Your task to perform on an android device: change the clock display to digital Image 0: 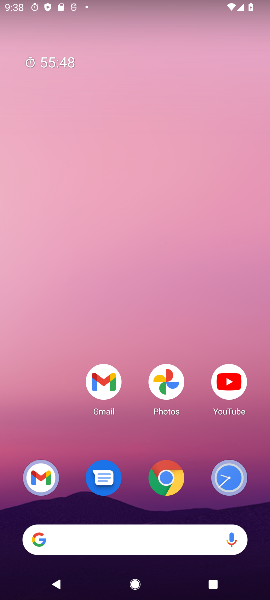
Step 0: press home button
Your task to perform on an android device: change the clock display to digital Image 1: 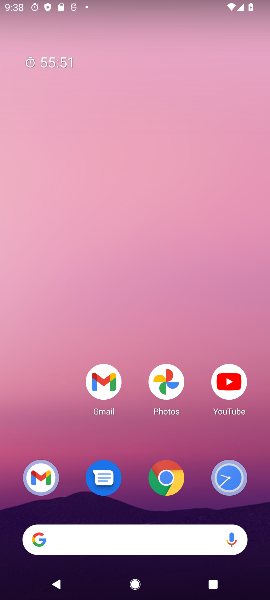
Step 1: drag from (137, 424) to (136, 39)
Your task to perform on an android device: change the clock display to digital Image 2: 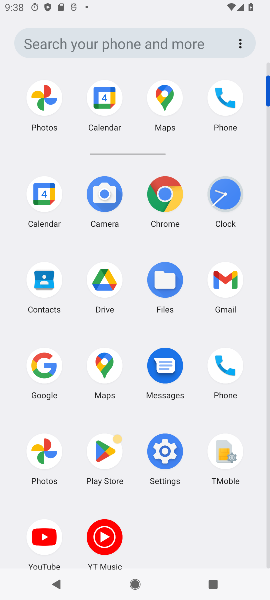
Step 2: click (214, 211)
Your task to perform on an android device: change the clock display to digital Image 3: 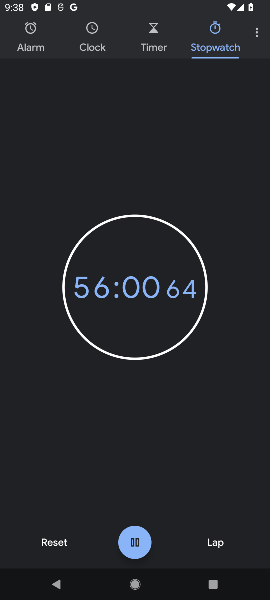
Step 3: click (258, 35)
Your task to perform on an android device: change the clock display to digital Image 4: 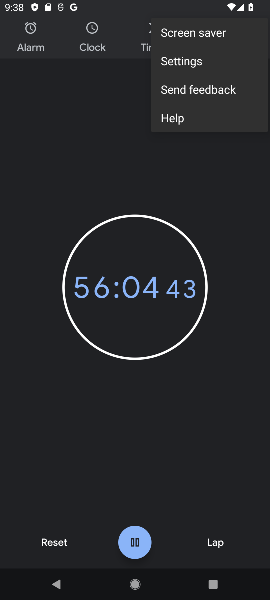
Step 4: click (172, 63)
Your task to perform on an android device: change the clock display to digital Image 5: 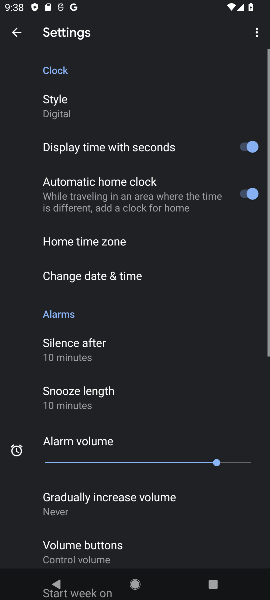
Step 5: click (46, 102)
Your task to perform on an android device: change the clock display to digital Image 6: 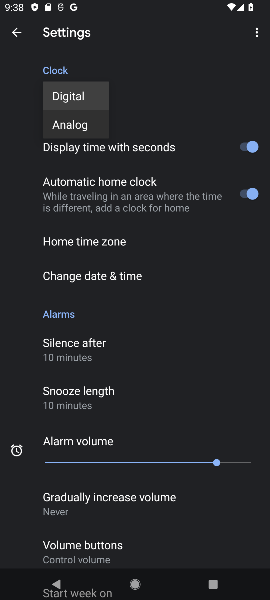
Step 6: click (75, 93)
Your task to perform on an android device: change the clock display to digital Image 7: 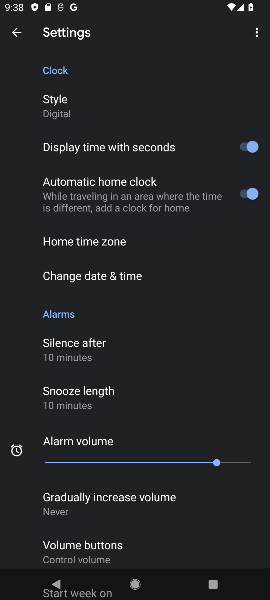
Step 7: task complete